Your task to perform on an android device: turn pop-ups on in chrome Image 0: 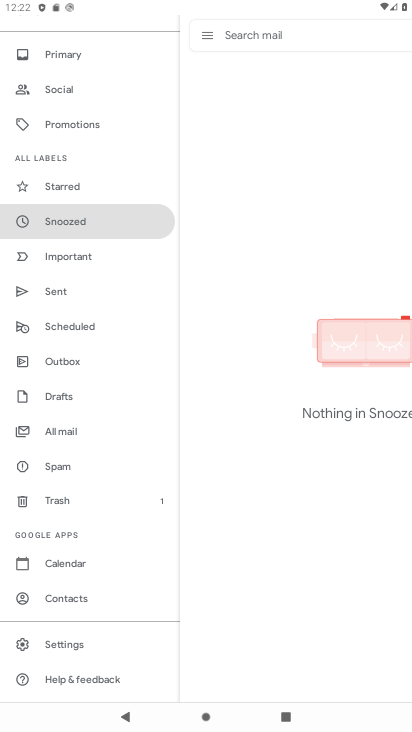
Step 0: press home button
Your task to perform on an android device: turn pop-ups on in chrome Image 1: 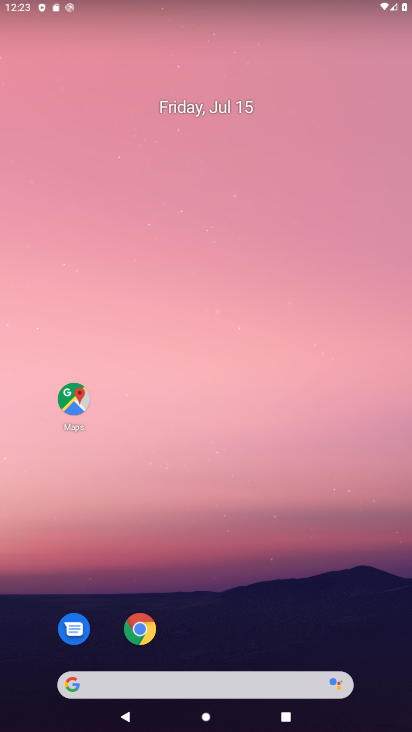
Step 1: click (139, 628)
Your task to perform on an android device: turn pop-ups on in chrome Image 2: 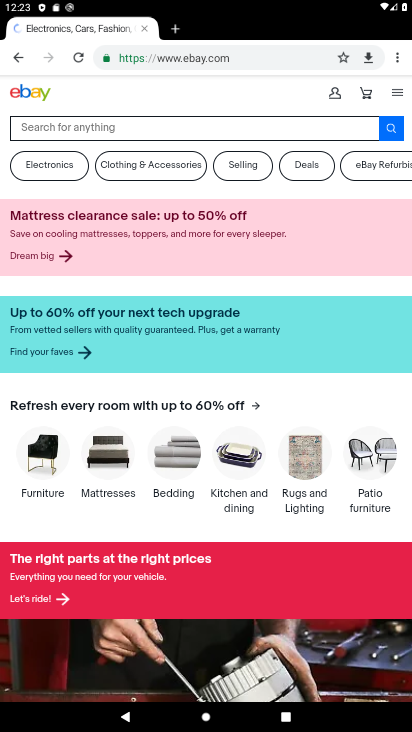
Step 2: drag from (398, 63) to (286, 423)
Your task to perform on an android device: turn pop-ups on in chrome Image 3: 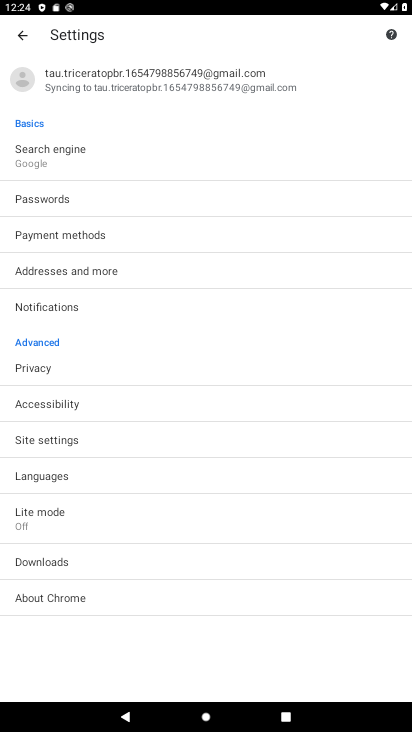
Step 3: click (55, 435)
Your task to perform on an android device: turn pop-ups on in chrome Image 4: 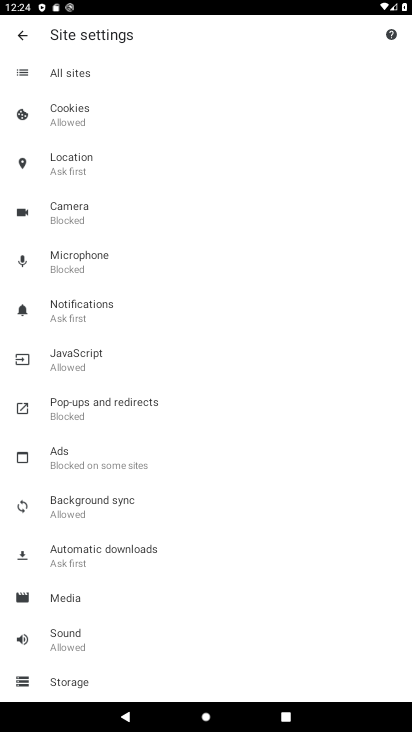
Step 4: click (80, 403)
Your task to perform on an android device: turn pop-ups on in chrome Image 5: 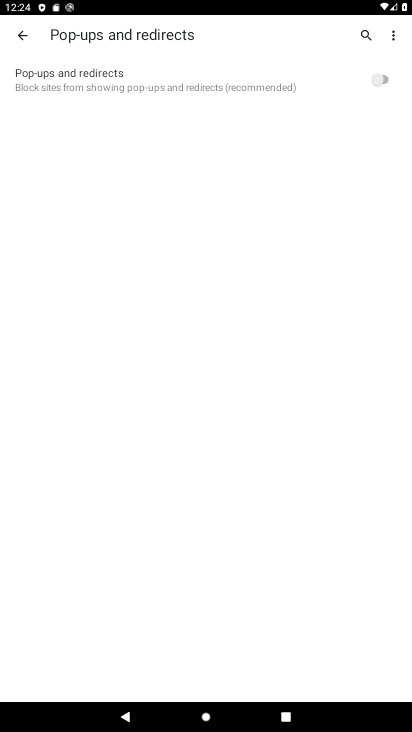
Step 5: click (372, 82)
Your task to perform on an android device: turn pop-ups on in chrome Image 6: 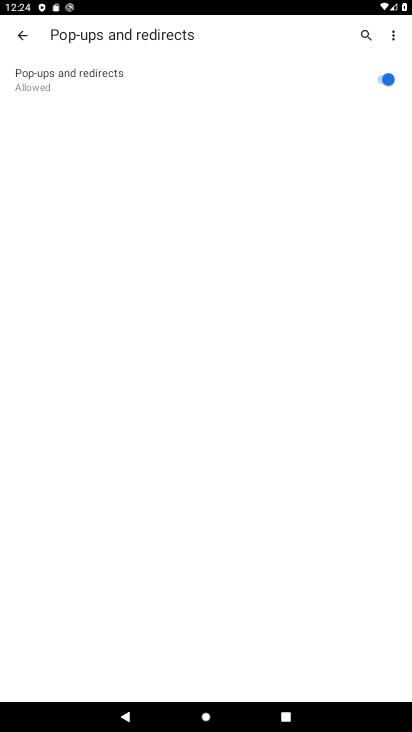
Step 6: task complete